Your task to perform on an android device: move a message to another label in the gmail app Image 0: 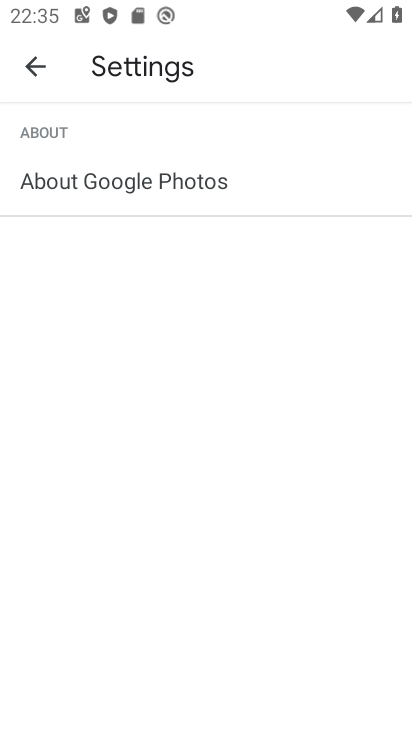
Step 0: press home button
Your task to perform on an android device: move a message to another label in the gmail app Image 1: 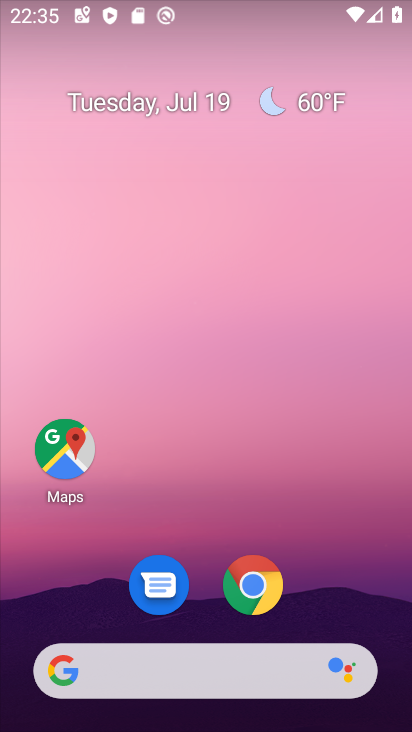
Step 1: drag from (318, 593) to (336, 48)
Your task to perform on an android device: move a message to another label in the gmail app Image 2: 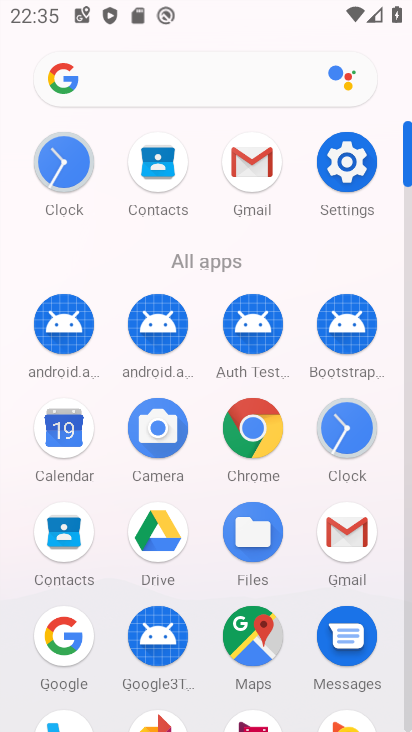
Step 2: click (259, 152)
Your task to perform on an android device: move a message to another label in the gmail app Image 3: 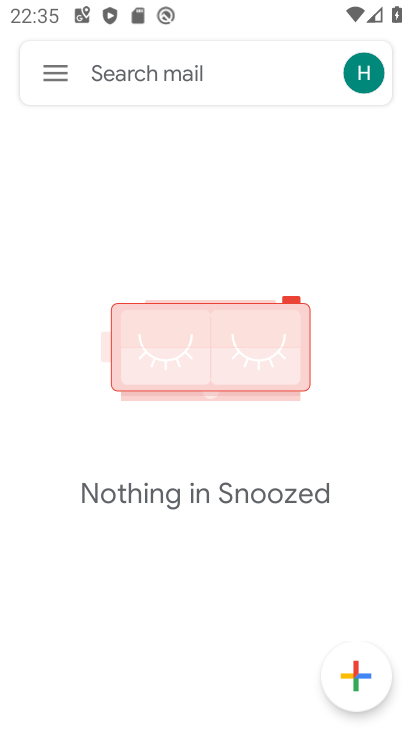
Step 3: click (52, 71)
Your task to perform on an android device: move a message to another label in the gmail app Image 4: 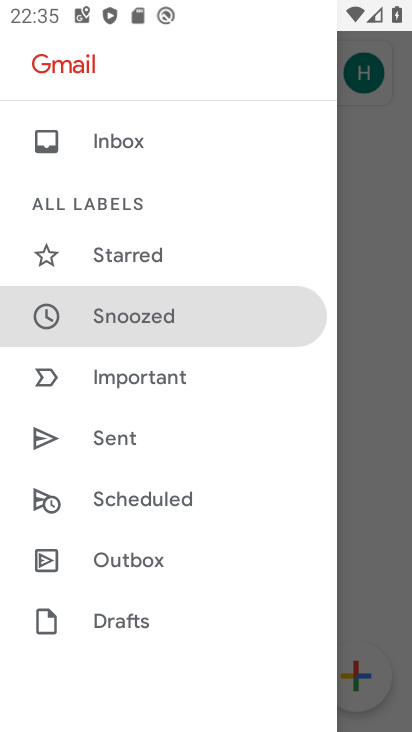
Step 4: drag from (193, 543) to (222, 185)
Your task to perform on an android device: move a message to another label in the gmail app Image 5: 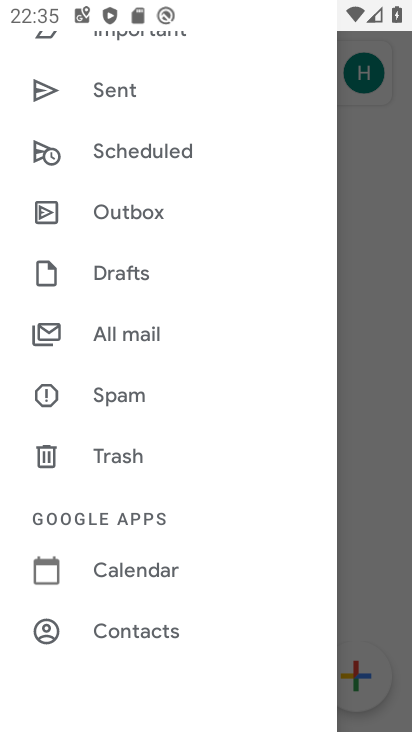
Step 5: click (152, 332)
Your task to perform on an android device: move a message to another label in the gmail app Image 6: 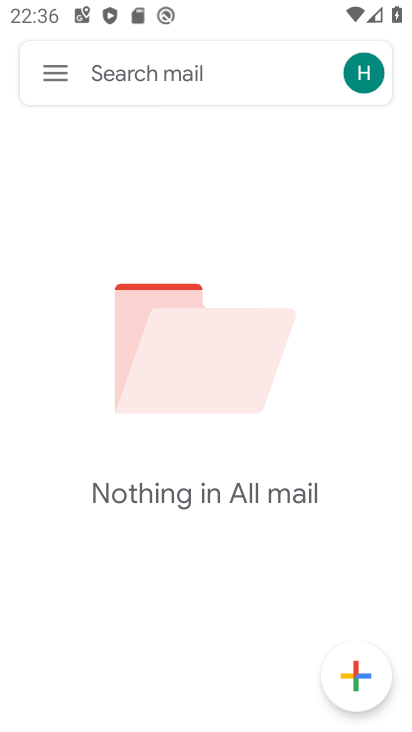
Step 6: task complete